Your task to perform on an android device: Turn off the flashlight Image 0: 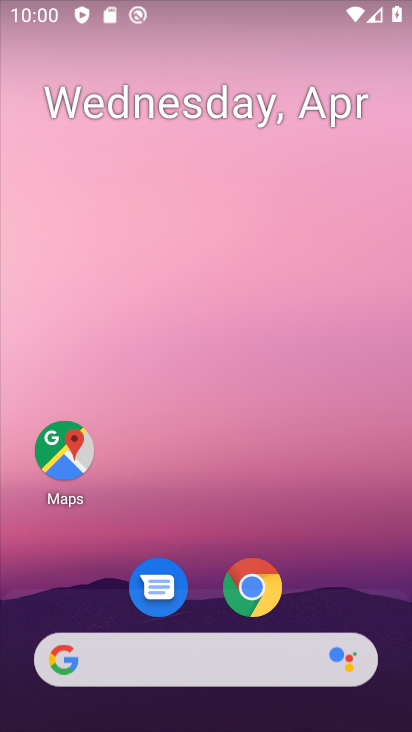
Step 0: drag from (347, 60) to (233, 652)
Your task to perform on an android device: Turn off the flashlight Image 1: 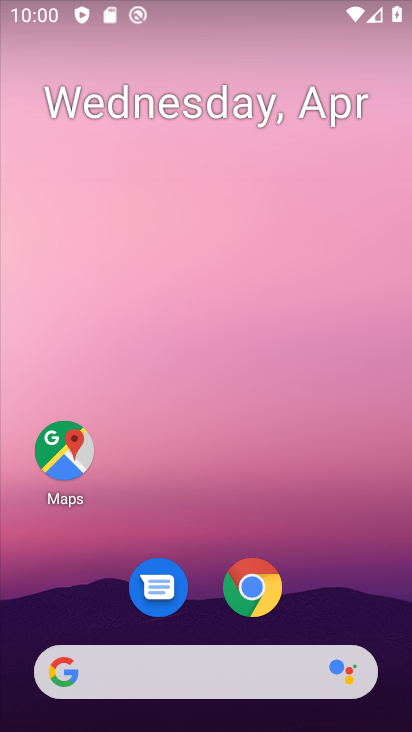
Step 1: drag from (328, 8) to (312, 496)
Your task to perform on an android device: Turn off the flashlight Image 2: 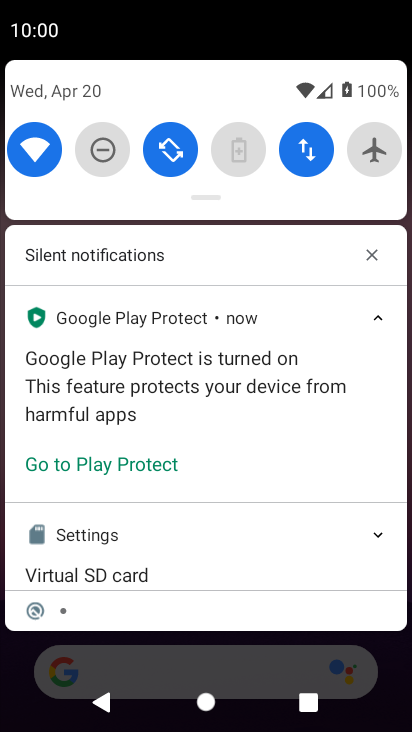
Step 2: drag from (211, 180) to (217, 511)
Your task to perform on an android device: Turn off the flashlight Image 3: 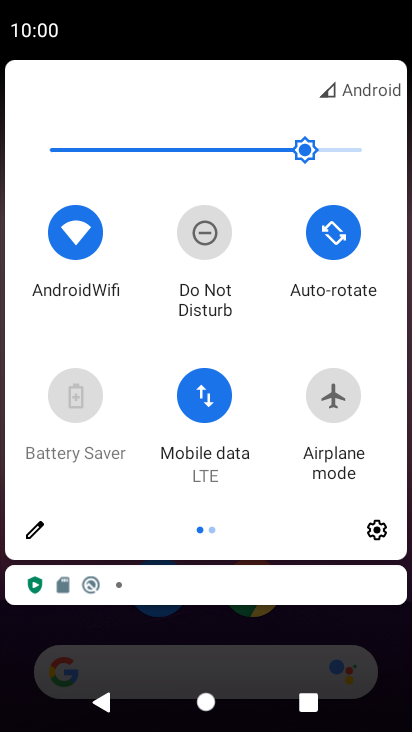
Step 3: click (23, 522)
Your task to perform on an android device: Turn off the flashlight Image 4: 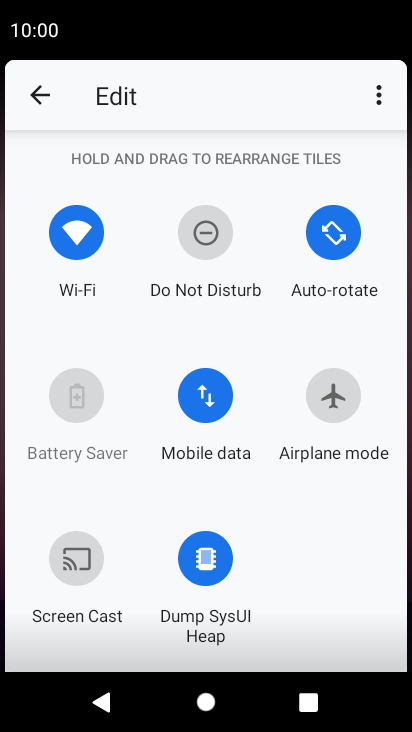
Step 4: task complete